Your task to perform on an android device: Open calendar and show me the first week of next month Image 0: 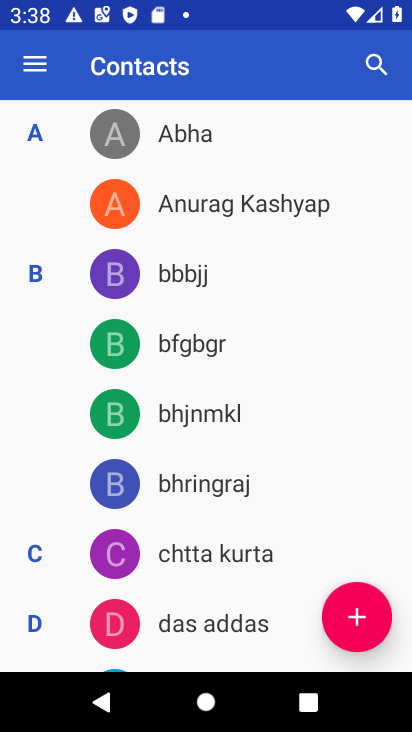
Step 0: press home button
Your task to perform on an android device: Open calendar and show me the first week of next month Image 1: 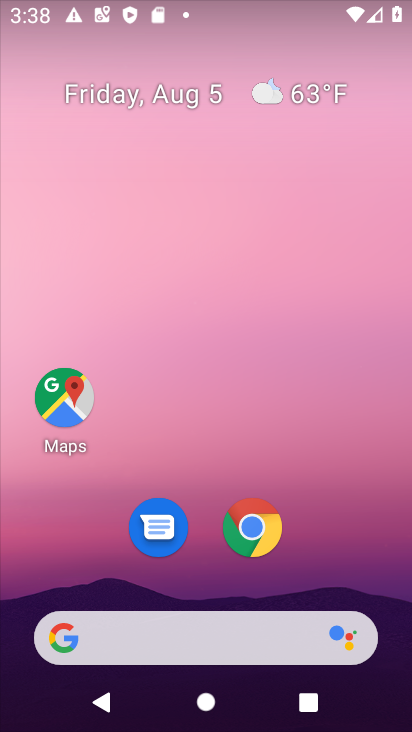
Step 1: drag from (217, 586) to (188, 166)
Your task to perform on an android device: Open calendar and show me the first week of next month Image 2: 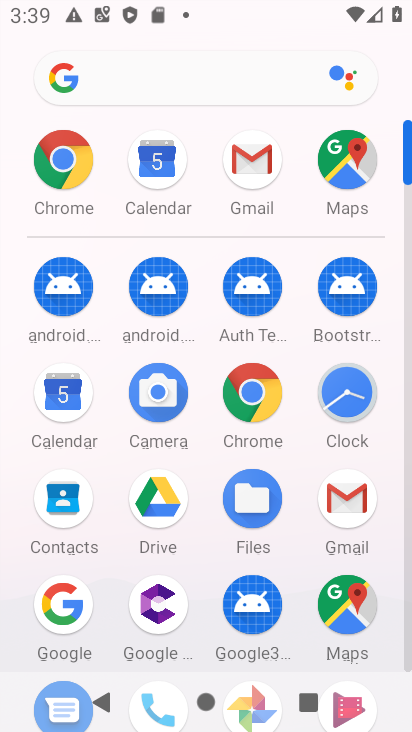
Step 2: click (67, 400)
Your task to perform on an android device: Open calendar and show me the first week of next month Image 3: 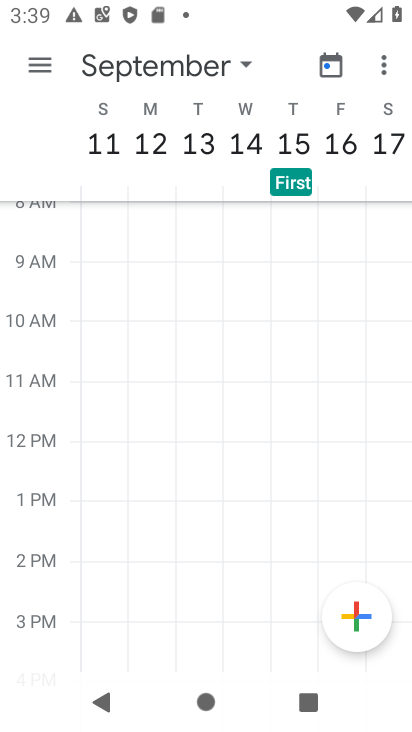
Step 3: click (243, 65)
Your task to perform on an android device: Open calendar and show me the first week of next month Image 4: 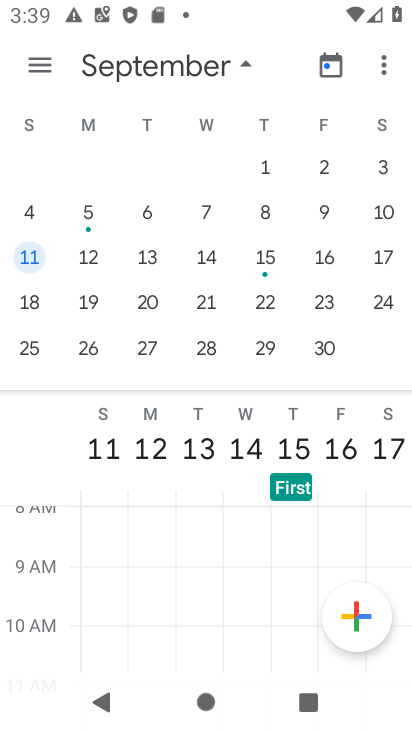
Step 4: click (269, 164)
Your task to perform on an android device: Open calendar and show me the first week of next month Image 5: 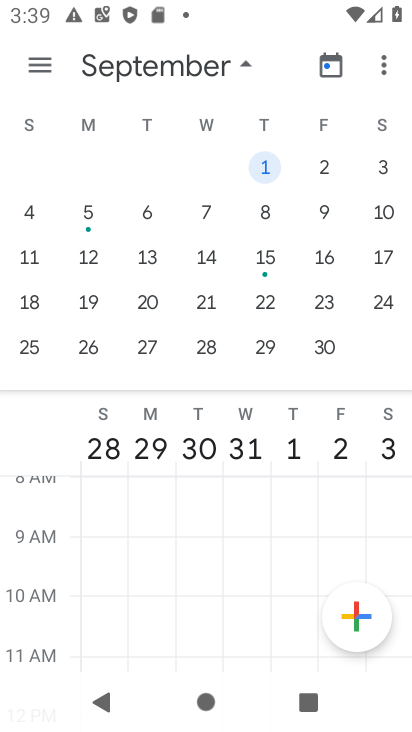
Step 5: click (381, 166)
Your task to perform on an android device: Open calendar and show me the first week of next month Image 6: 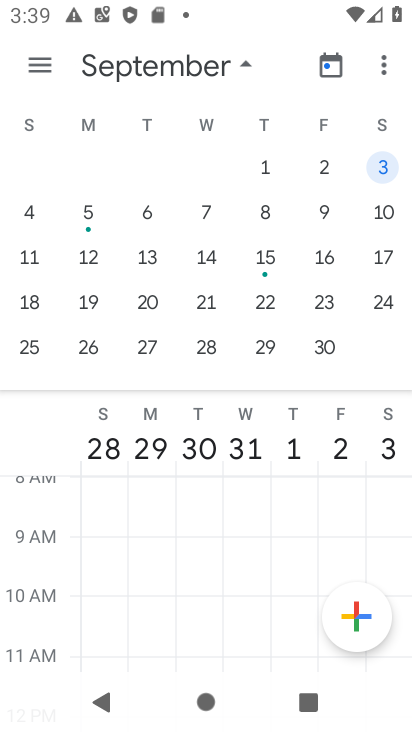
Step 6: click (35, 207)
Your task to perform on an android device: Open calendar and show me the first week of next month Image 7: 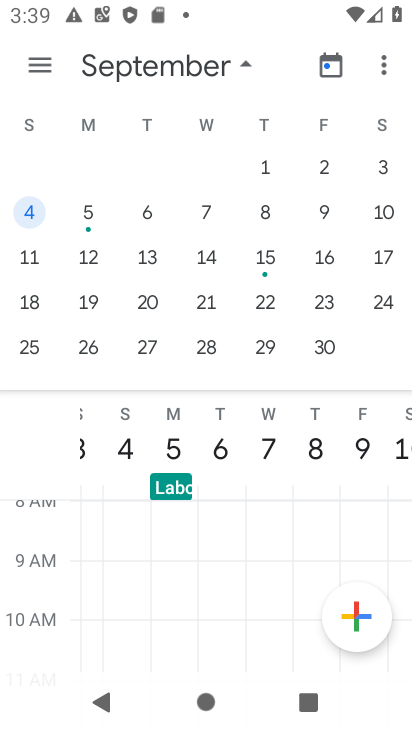
Step 7: click (38, 62)
Your task to perform on an android device: Open calendar and show me the first week of next month Image 8: 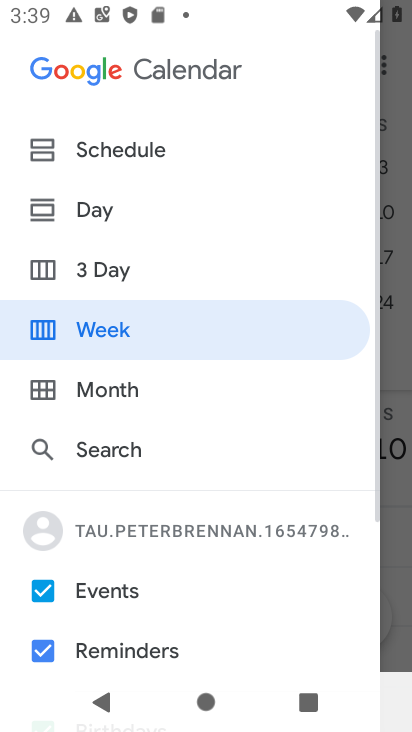
Step 8: click (101, 333)
Your task to perform on an android device: Open calendar and show me the first week of next month Image 9: 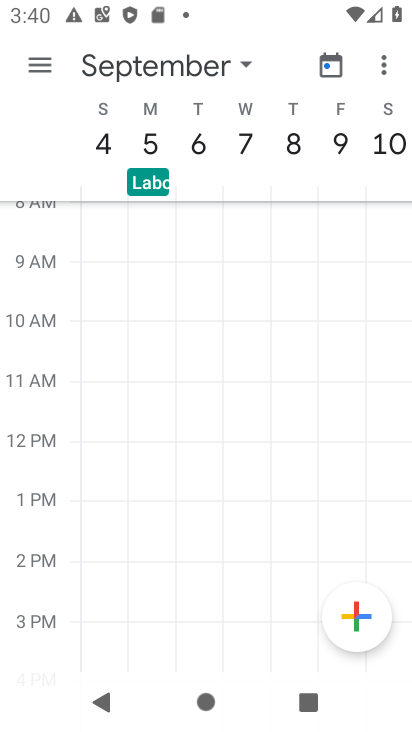
Step 9: task complete